Your task to perform on an android device: When is my next appointment? Image 0: 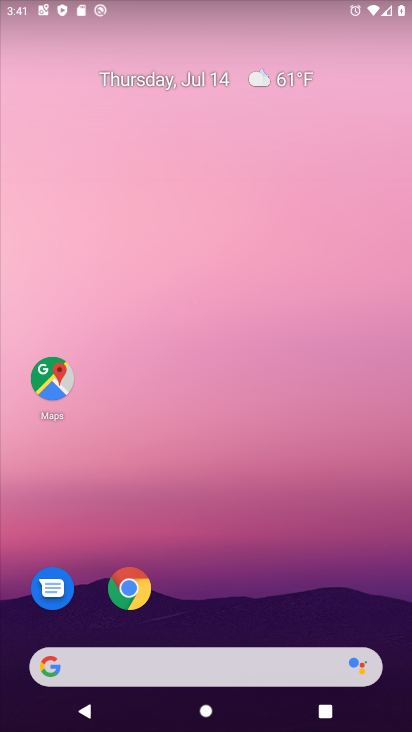
Step 0: press home button
Your task to perform on an android device: When is my next appointment? Image 1: 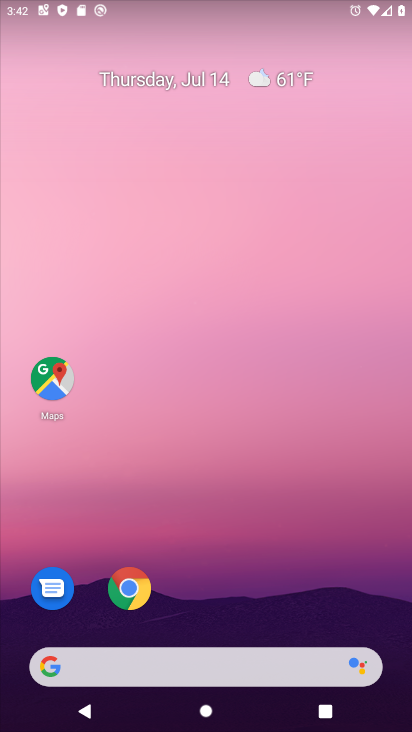
Step 1: drag from (276, 615) to (321, 53)
Your task to perform on an android device: When is my next appointment? Image 2: 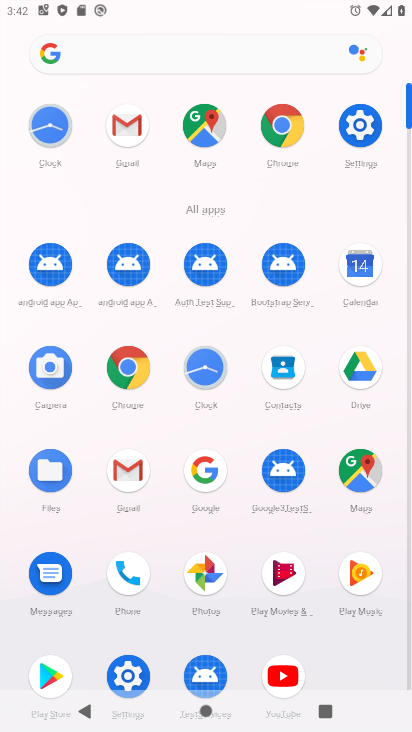
Step 2: click (365, 260)
Your task to perform on an android device: When is my next appointment? Image 3: 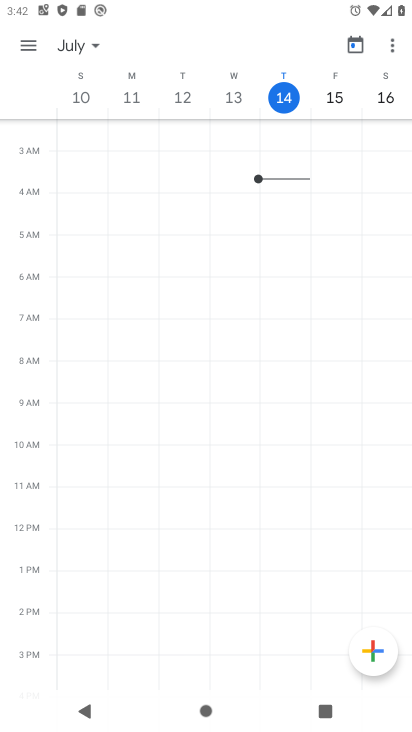
Step 3: click (29, 52)
Your task to perform on an android device: When is my next appointment? Image 4: 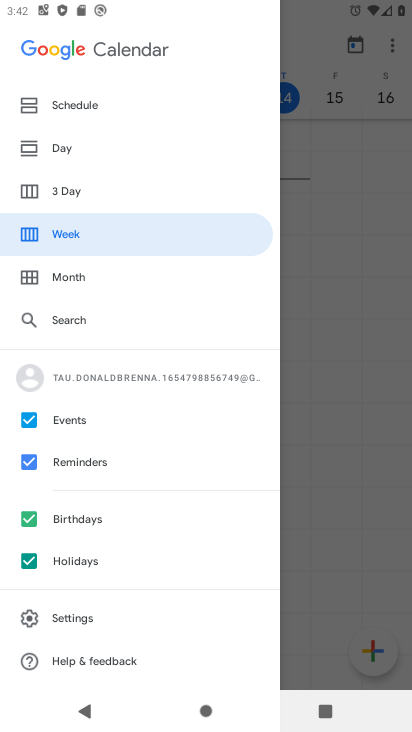
Step 4: click (67, 102)
Your task to perform on an android device: When is my next appointment? Image 5: 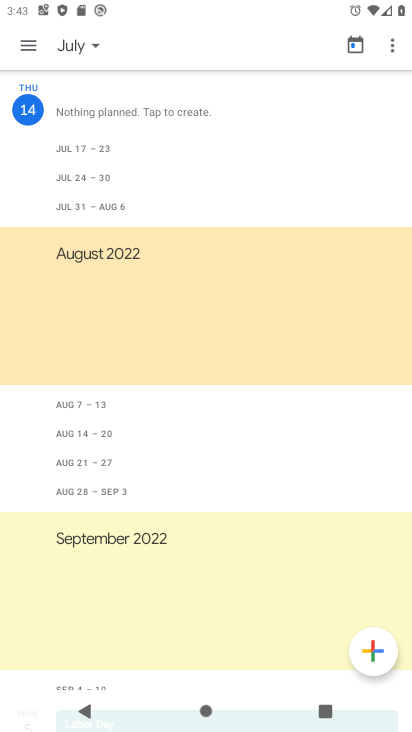
Step 5: task complete